Your task to perform on an android device: Open privacy settings Image 0: 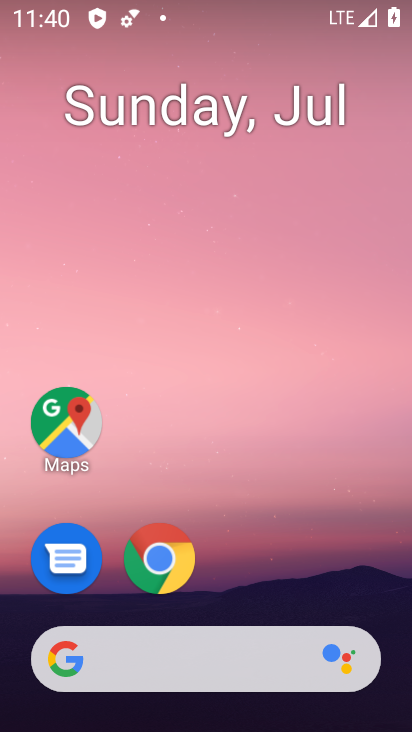
Step 0: click (167, 554)
Your task to perform on an android device: Open privacy settings Image 1: 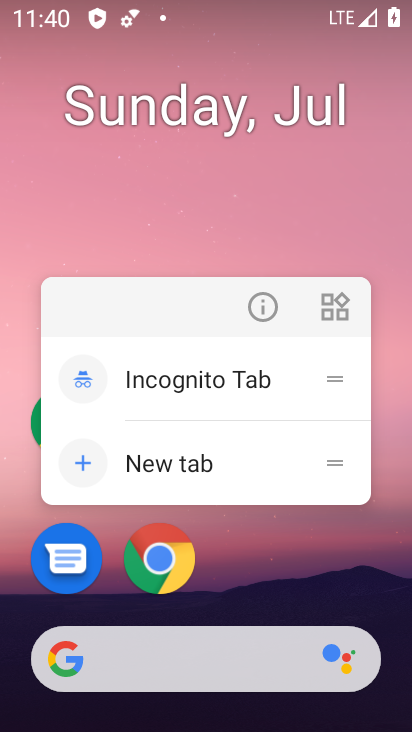
Step 1: click (167, 554)
Your task to perform on an android device: Open privacy settings Image 2: 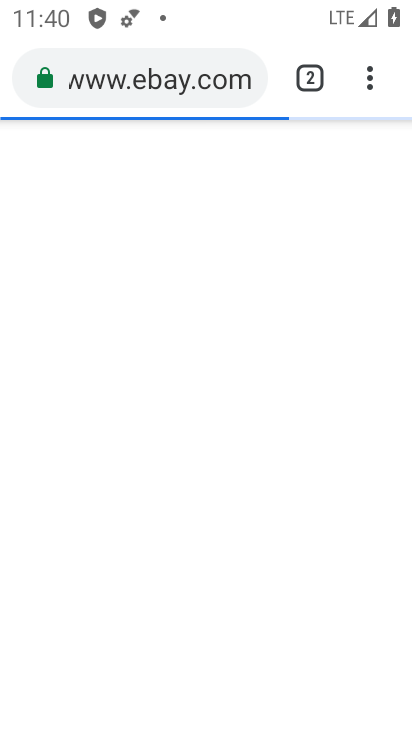
Step 2: drag from (365, 76) to (117, 609)
Your task to perform on an android device: Open privacy settings Image 3: 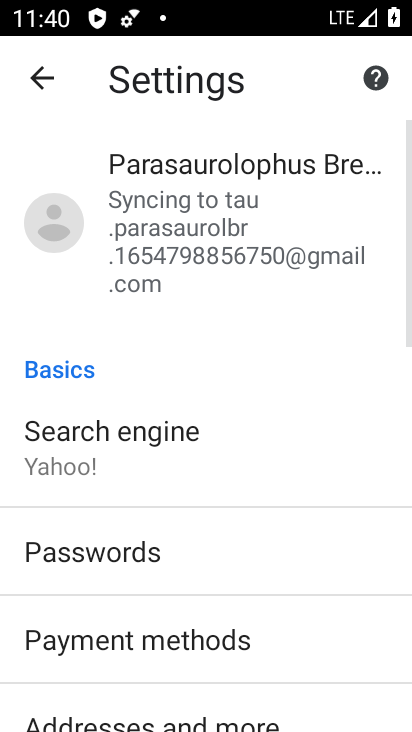
Step 3: drag from (126, 619) to (175, 165)
Your task to perform on an android device: Open privacy settings Image 4: 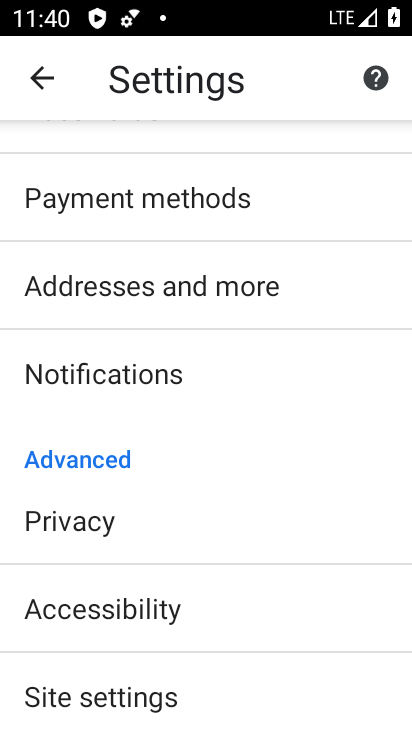
Step 4: click (70, 518)
Your task to perform on an android device: Open privacy settings Image 5: 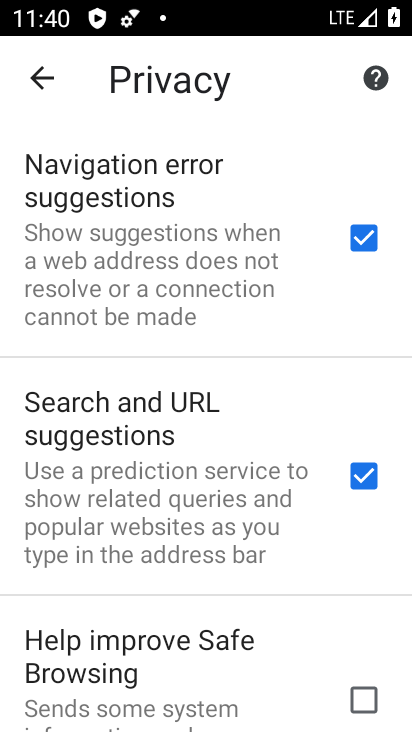
Step 5: task complete